Your task to perform on an android device: Open Reddit.com Image 0: 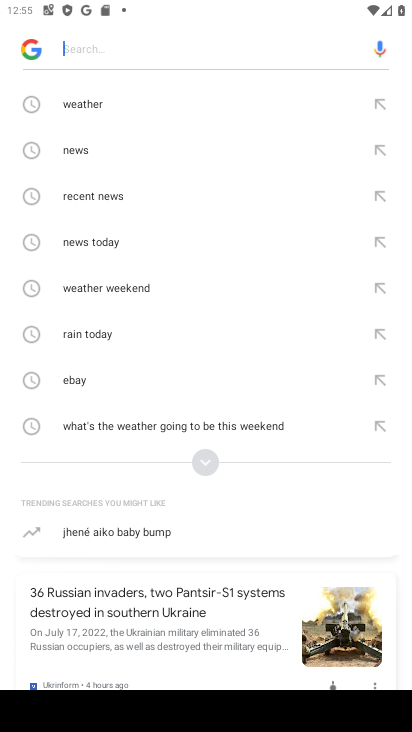
Step 0: type "reddit.com"
Your task to perform on an android device: Open Reddit.com Image 1: 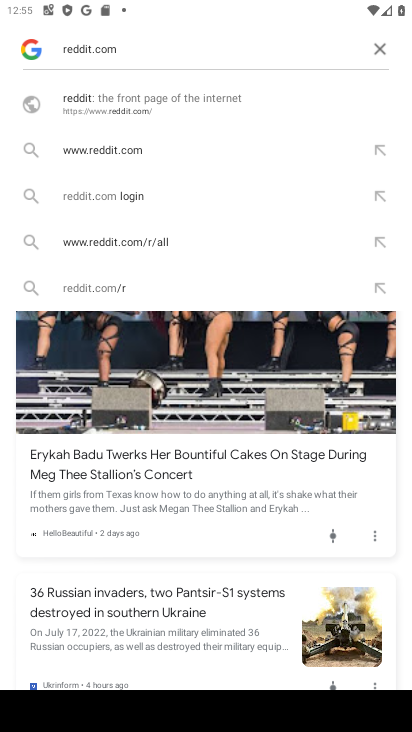
Step 1: click (219, 109)
Your task to perform on an android device: Open Reddit.com Image 2: 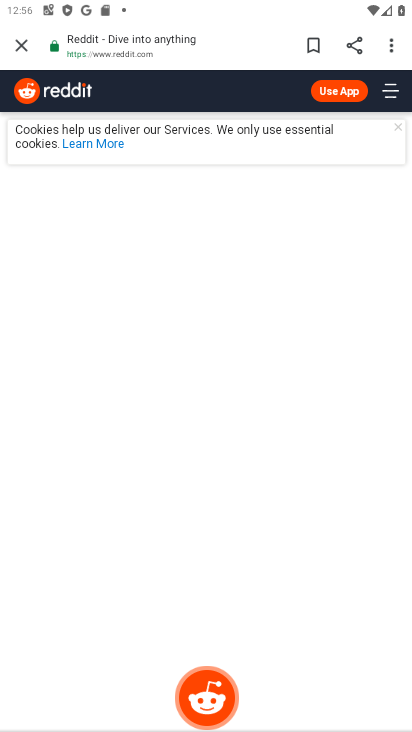
Step 2: task complete